Your task to perform on an android device: See recent photos Image 0: 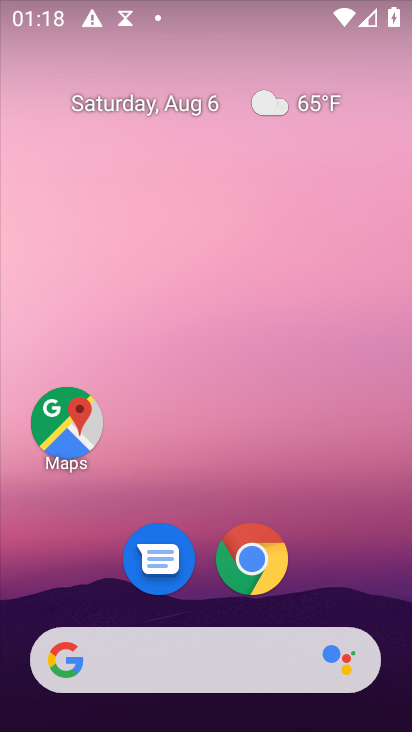
Step 0: drag from (378, 599) to (246, 101)
Your task to perform on an android device: See recent photos Image 1: 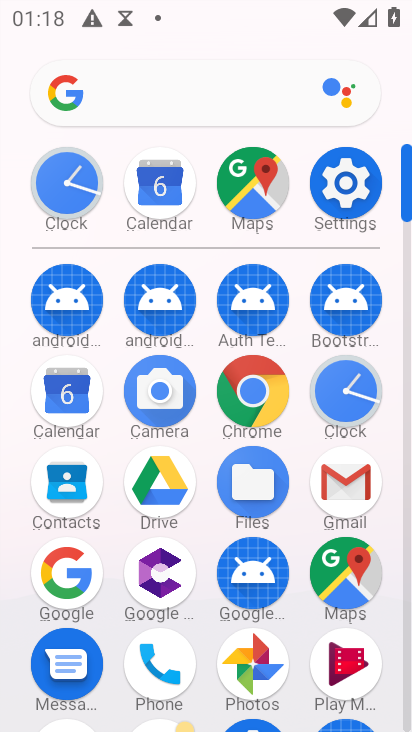
Step 1: click (257, 663)
Your task to perform on an android device: See recent photos Image 2: 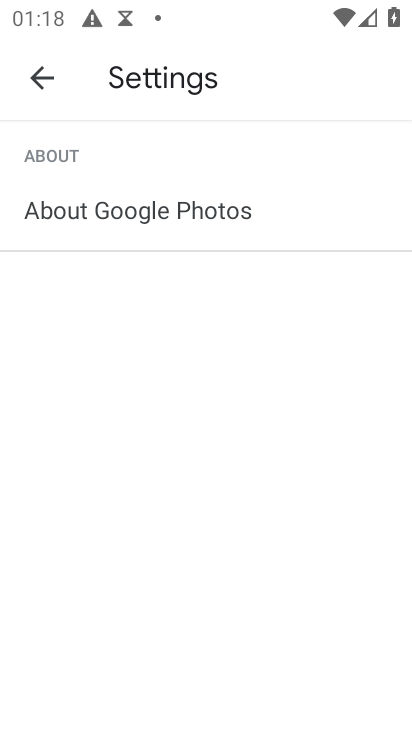
Step 2: click (46, 93)
Your task to perform on an android device: See recent photos Image 3: 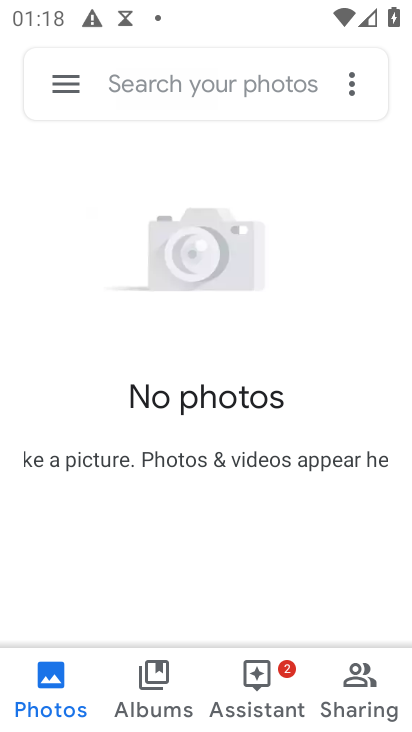
Step 3: task complete